Your task to perform on an android device: clear all cookies in the chrome app Image 0: 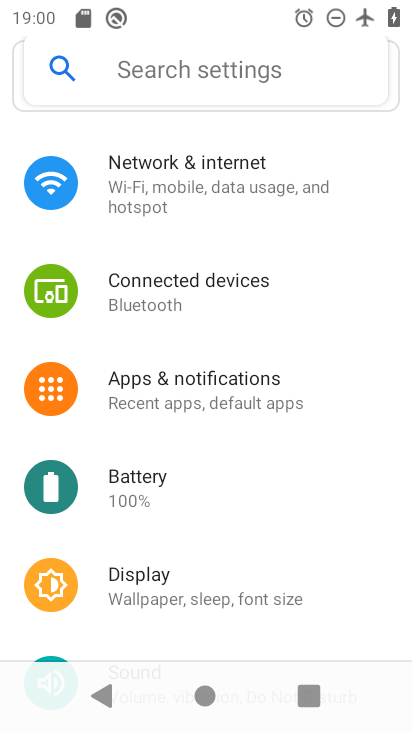
Step 0: press home button
Your task to perform on an android device: clear all cookies in the chrome app Image 1: 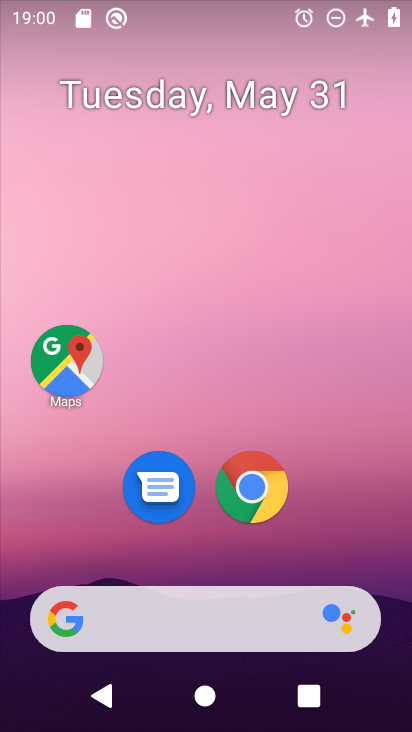
Step 1: click (257, 488)
Your task to perform on an android device: clear all cookies in the chrome app Image 2: 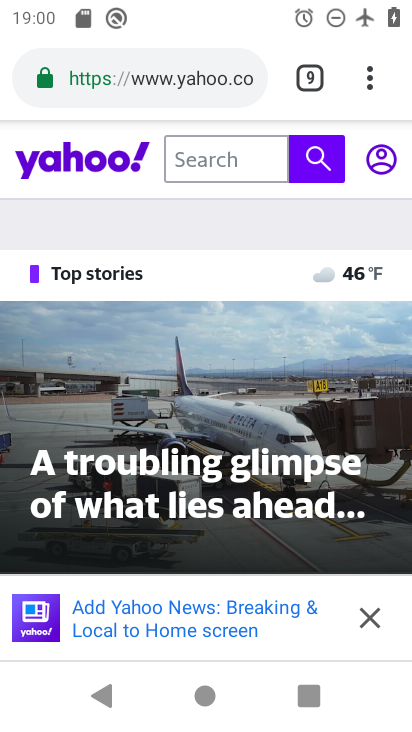
Step 2: click (371, 74)
Your task to perform on an android device: clear all cookies in the chrome app Image 3: 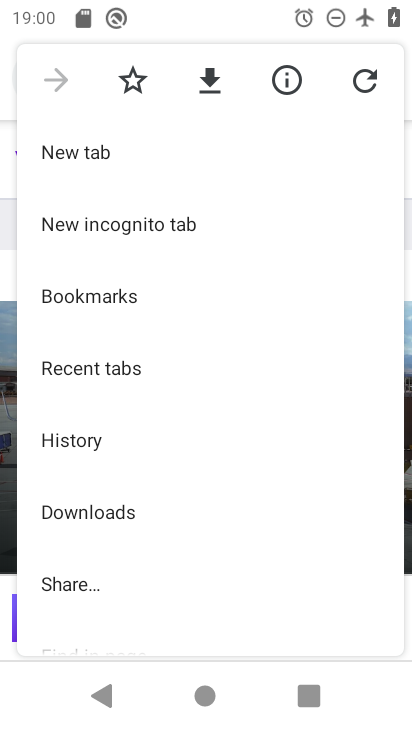
Step 3: click (78, 440)
Your task to perform on an android device: clear all cookies in the chrome app Image 4: 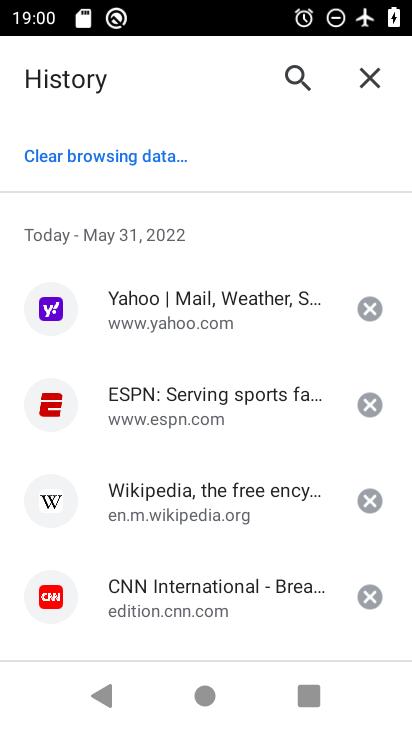
Step 4: click (127, 158)
Your task to perform on an android device: clear all cookies in the chrome app Image 5: 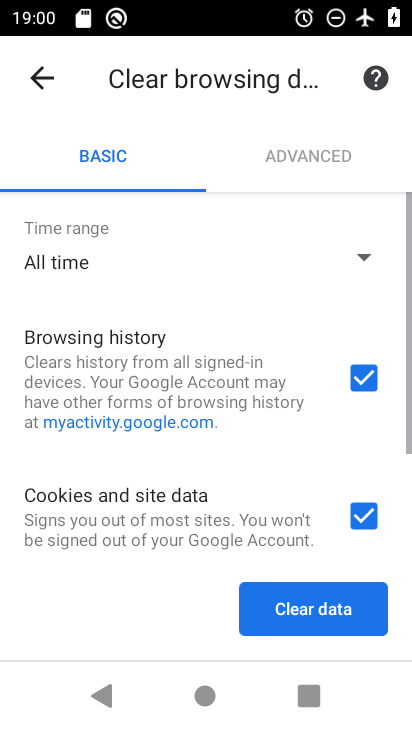
Step 5: click (359, 382)
Your task to perform on an android device: clear all cookies in the chrome app Image 6: 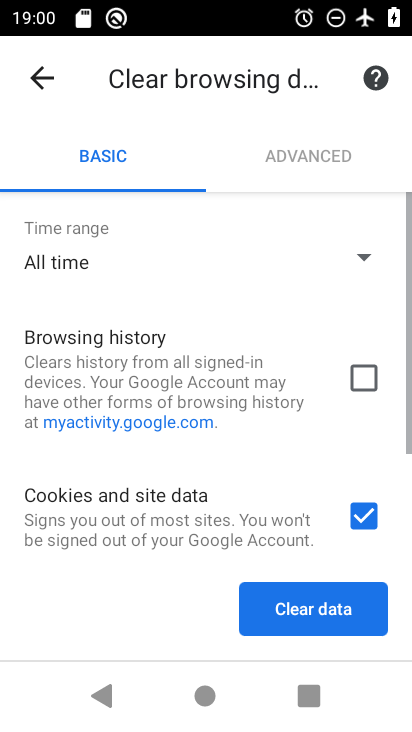
Step 6: drag from (299, 435) to (273, 235)
Your task to perform on an android device: clear all cookies in the chrome app Image 7: 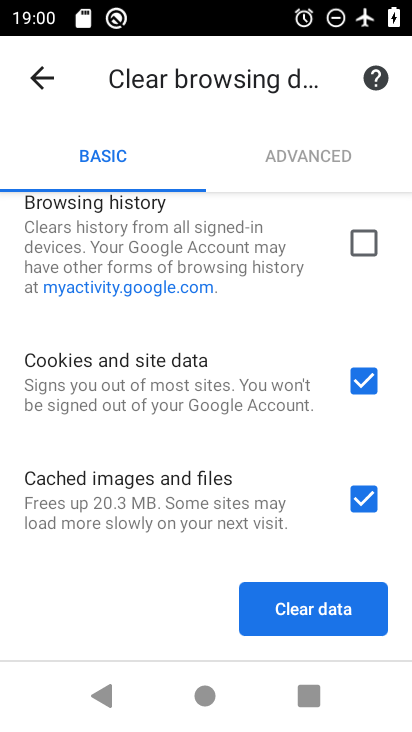
Step 7: click (363, 497)
Your task to perform on an android device: clear all cookies in the chrome app Image 8: 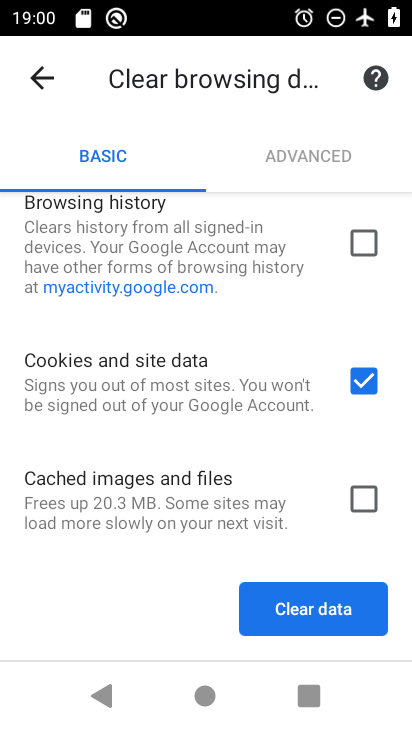
Step 8: click (280, 612)
Your task to perform on an android device: clear all cookies in the chrome app Image 9: 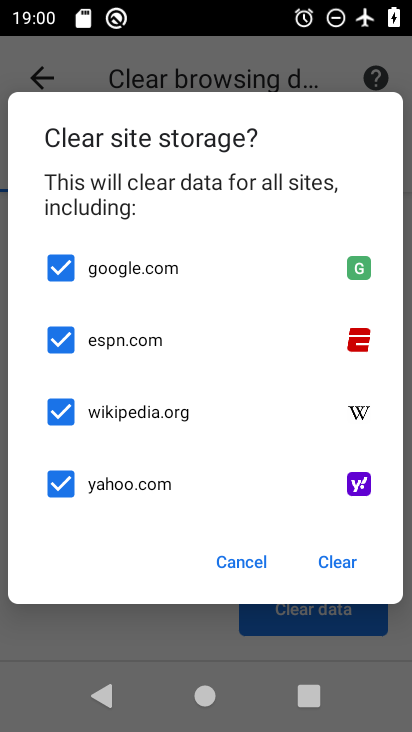
Step 9: click (335, 553)
Your task to perform on an android device: clear all cookies in the chrome app Image 10: 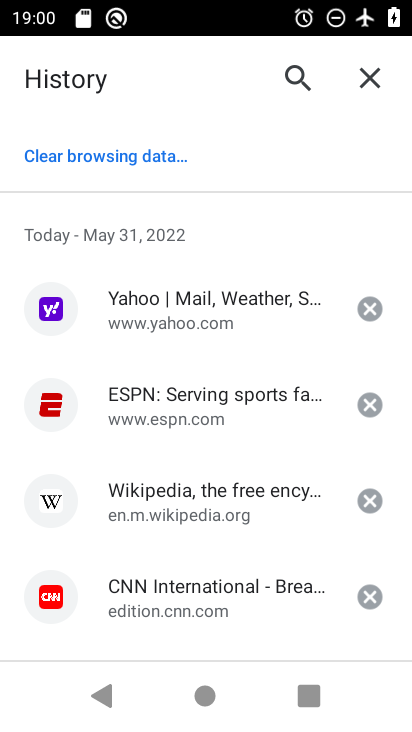
Step 10: task complete